Your task to perform on an android device: turn off data saver in the chrome app Image 0: 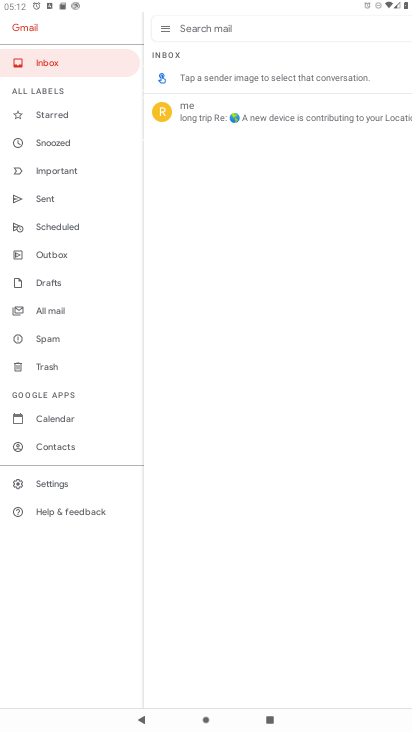
Step 0: press home button
Your task to perform on an android device: turn off data saver in the chrome app Image 1: 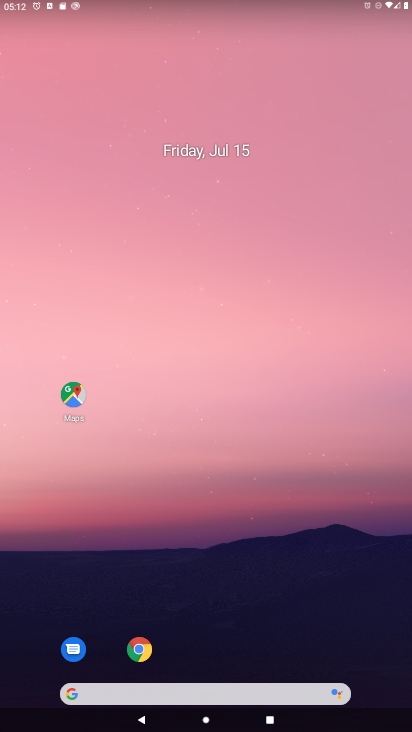
Step 1: click (140, 650)
Your task to perform on an android device: turn off data saver in the chrome app Image 2: 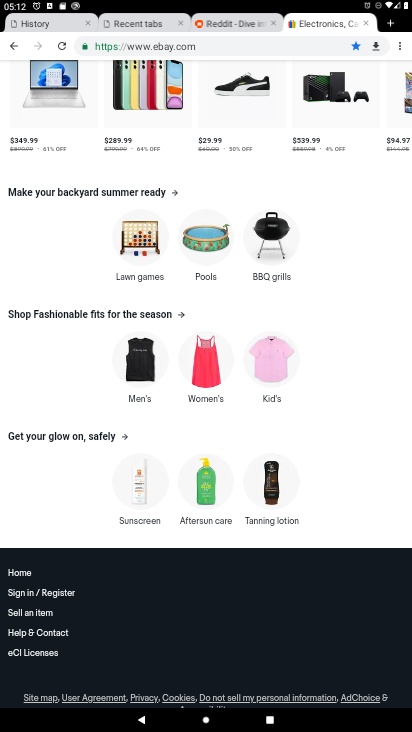
Step 2: click (402, 46)
Your task to perform on an android device: turn off data saver in the chrome app Image 3: 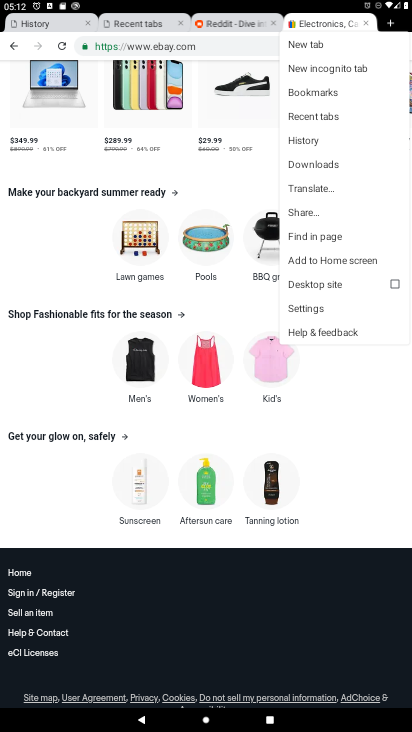
Step 3: click (305, 310)
Your task to perform on an android device: turn off data saver in the chrome app Image 4: 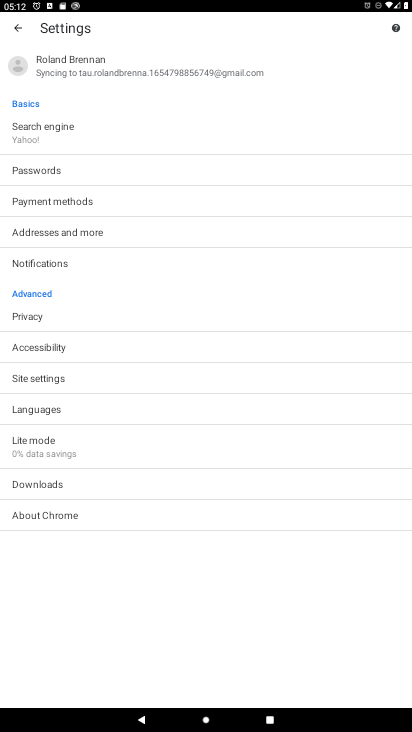
Step 4: click (34, 442)
Your task to perform on an android device: turn off data saver in the chrome app Image 5: 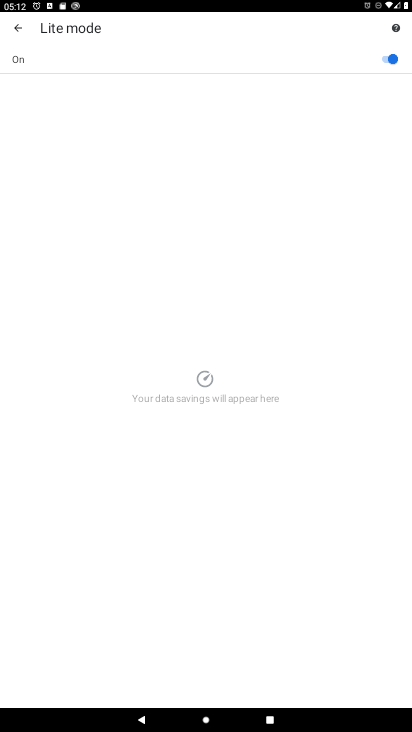
Step 5: click (384, 61)
Your task to perform on an android device: turn off data saver in the chrome app Image 6: 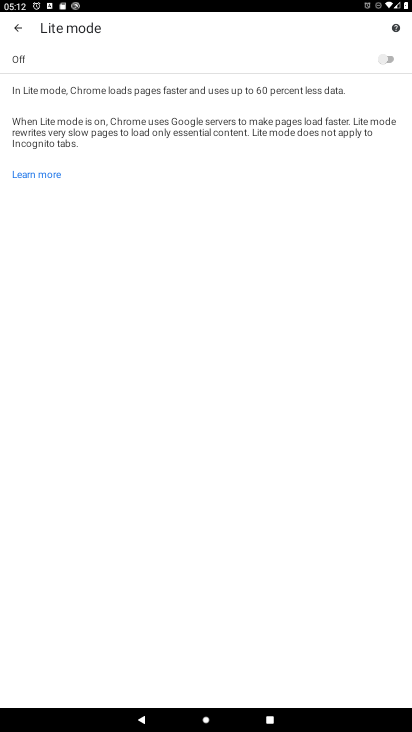
Step 6: task complete